Your task to perform on an android device: change the upload size in google photos Image 0: 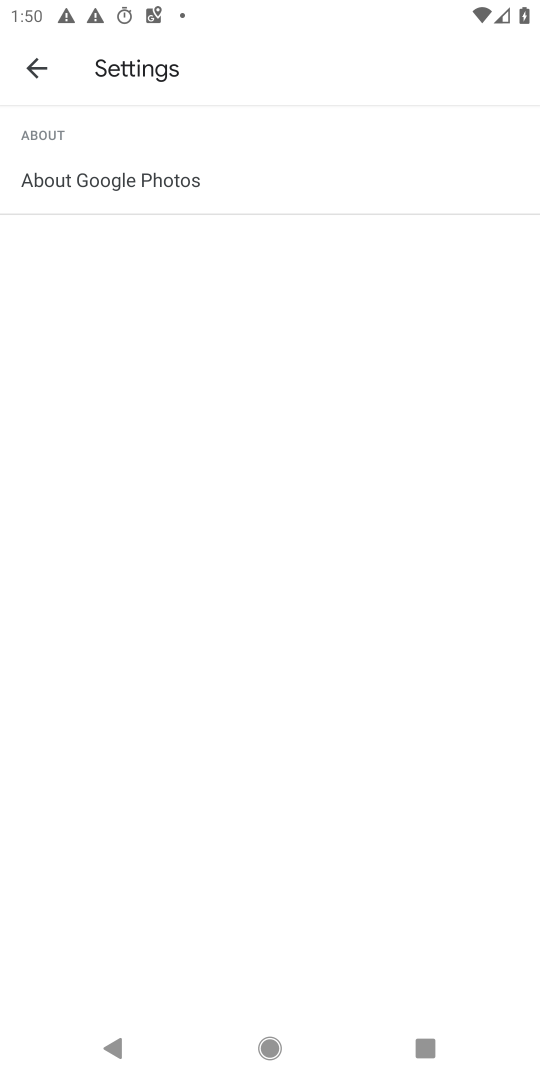
Step 0: press home button
Your task to perform on an android device: change the upload size in google photos Image 1: 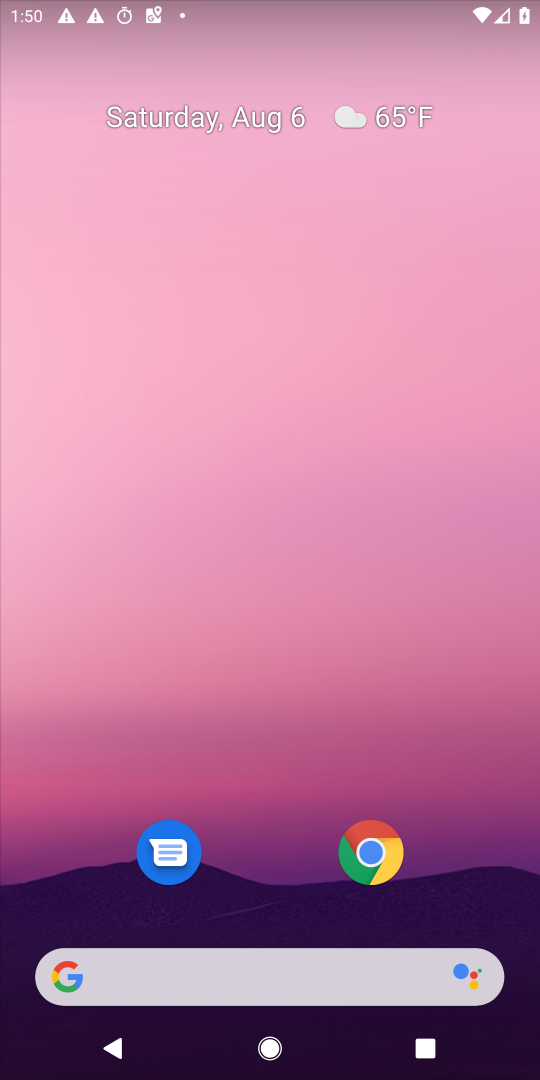
Step 1: drag from (333, 1002) to (390, 479)
Your task to perform on an android device: change the upload size in google photos Image 2: 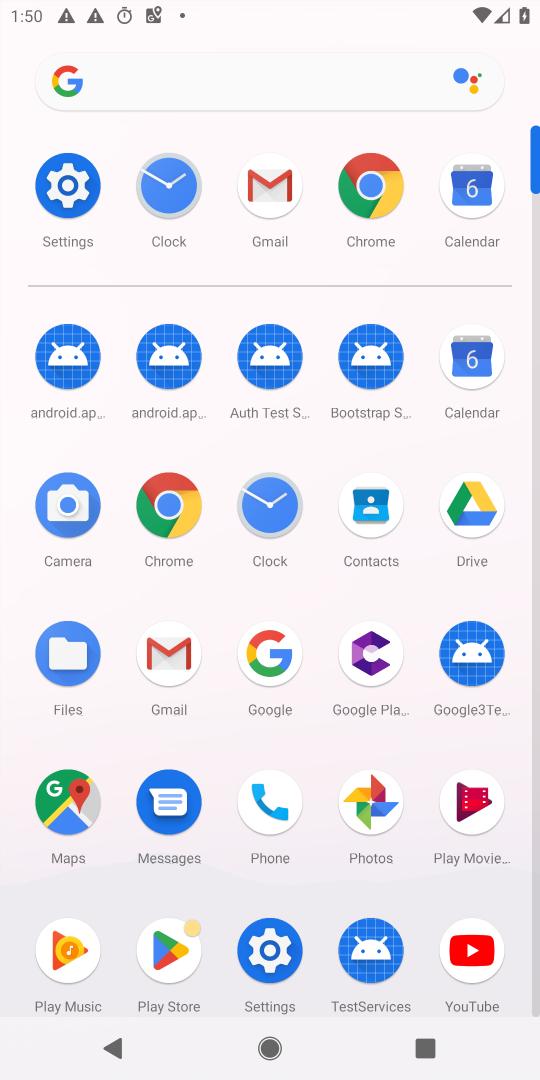
Step 2: click (361, 807)
Your task to perform on an android device: change the upload size in google photos Image 3: 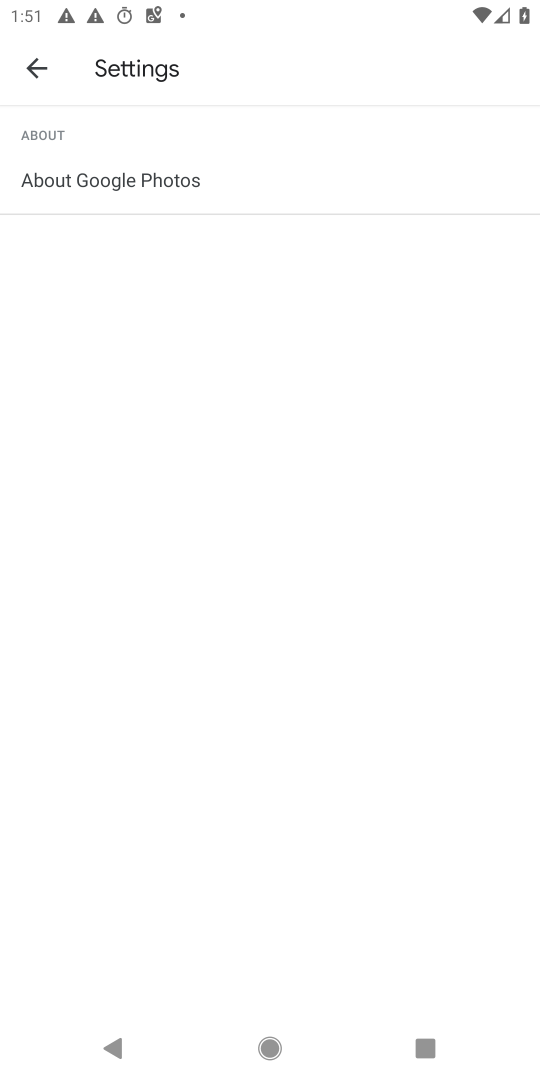
Step 3: click (27, 69)
Your task to perform on an android device: change the upload size in google photos Image 4: 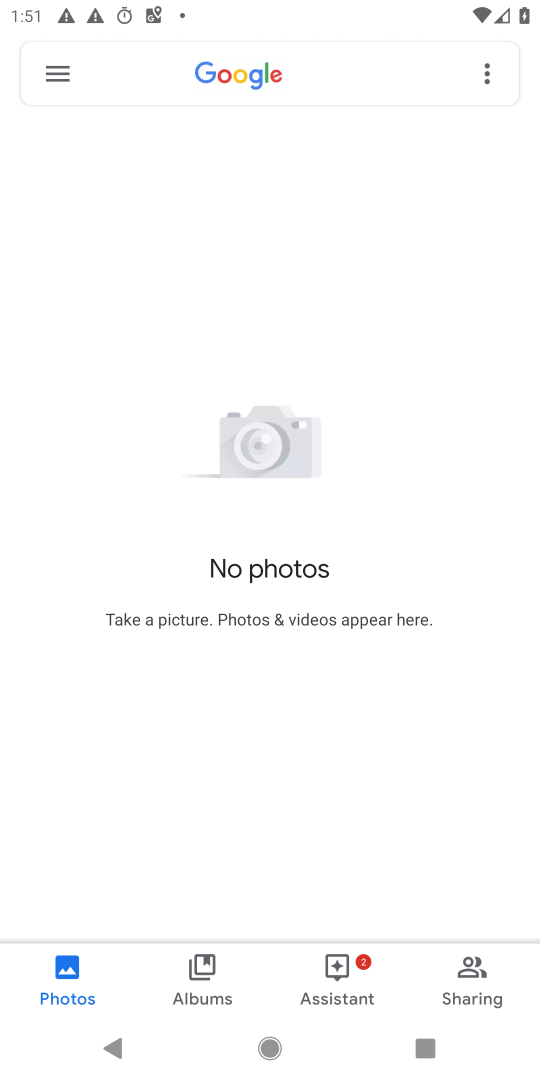
Step 4: click (54, 74)
Your task to perform on an android device: change the upload size in google photos Image 5: 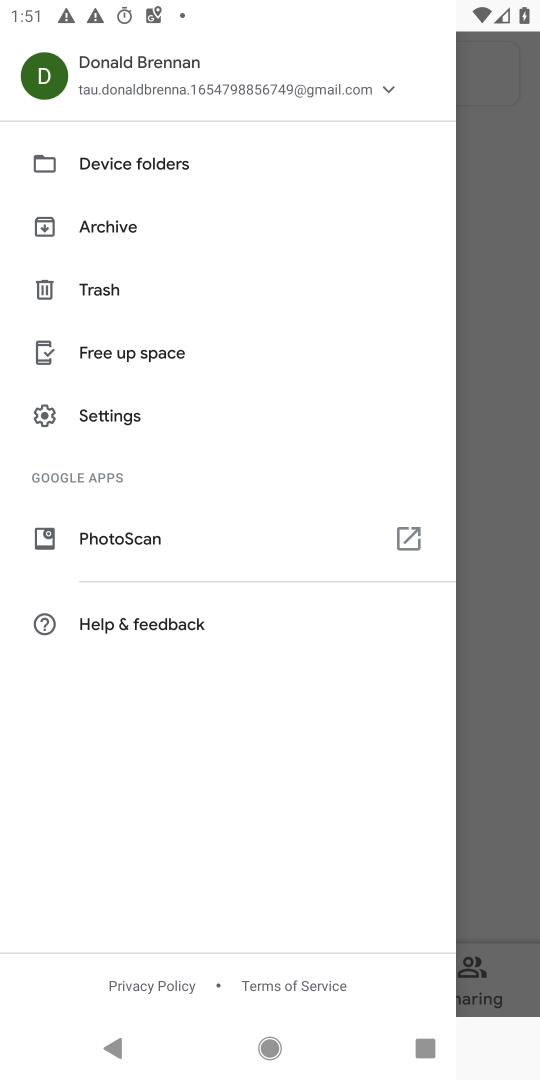
Step 5: click (105, 412)
Your task to perform on an android device: change the upload size in google photos Image 6: 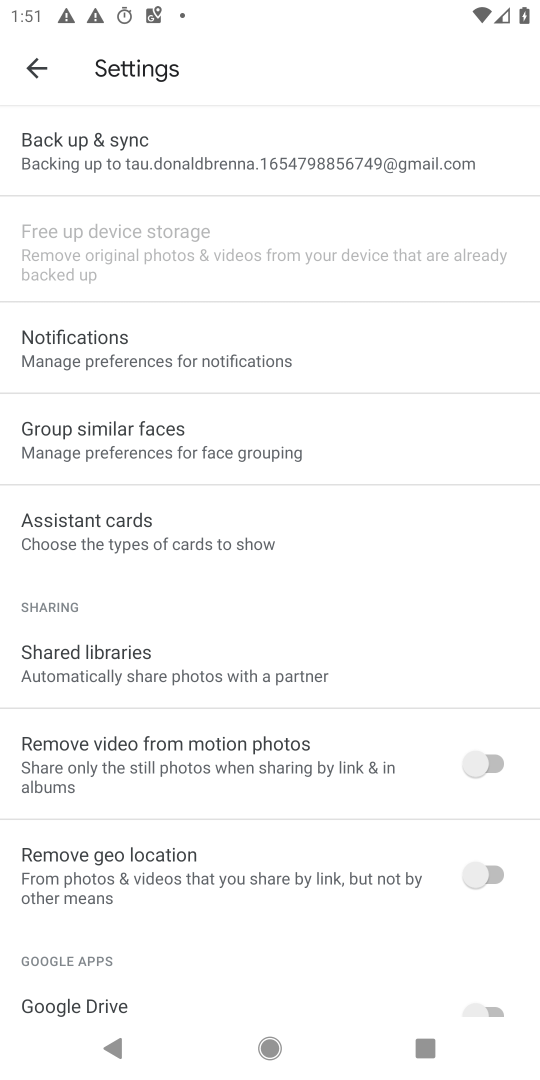
Step 6: click (165, 169)
Your task to perform on an android device: change the upload size in google photos Image 7: 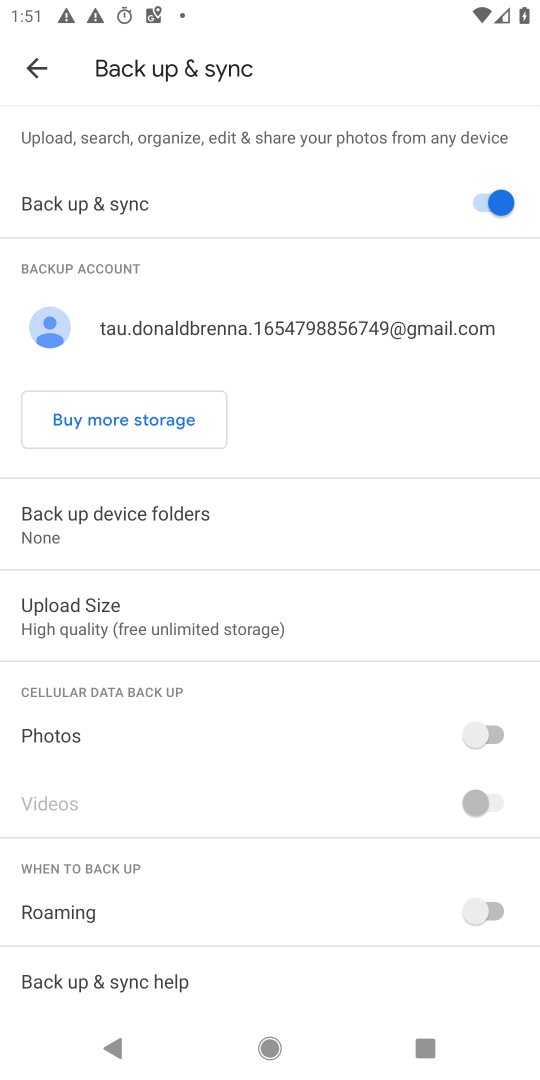
Step 7: click (83, 654)
Your task to perform on an android device: change the upload size in google photos Image 8: 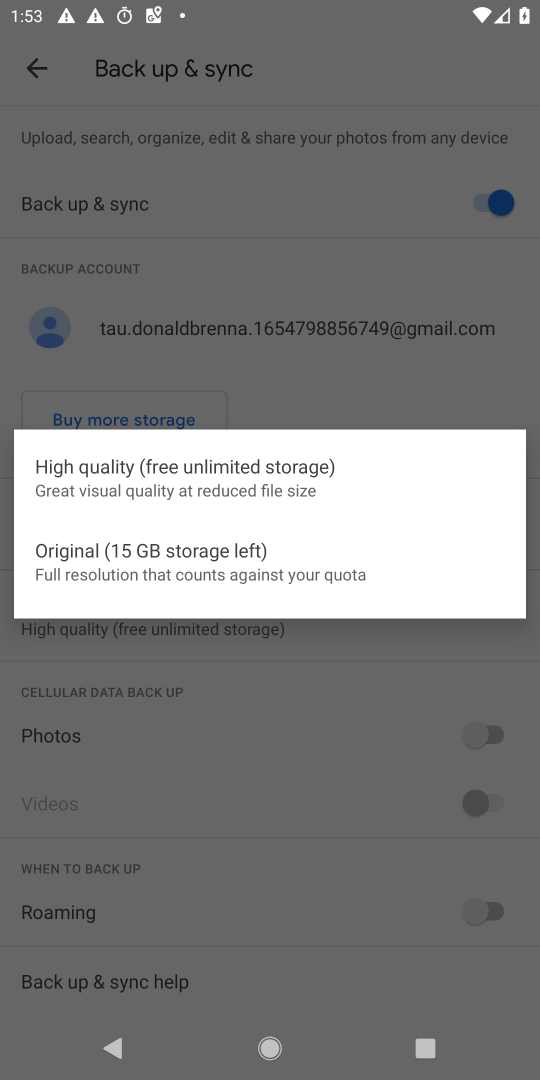
Step 8: task complete